Your task to perform on an android device: turn off sleep mode Image 0: 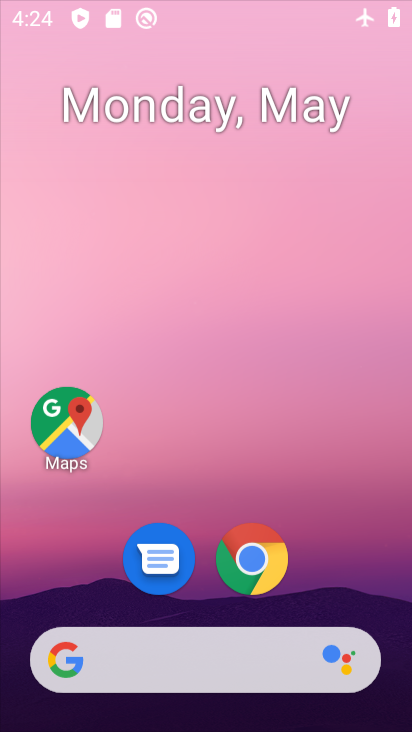
Step 0: drag from (281, 352) to (215, 60)
Your task to perform on an android device: turn off sleep mode Image 1: 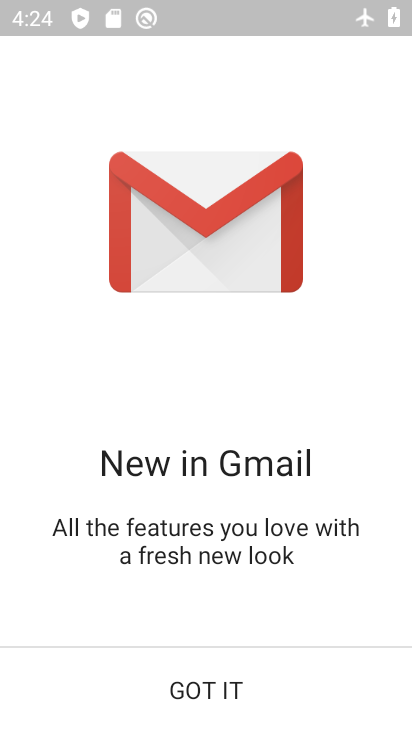
Step 1: press back button
Your task to perform on an android device: turn off sleep mode Image 2: 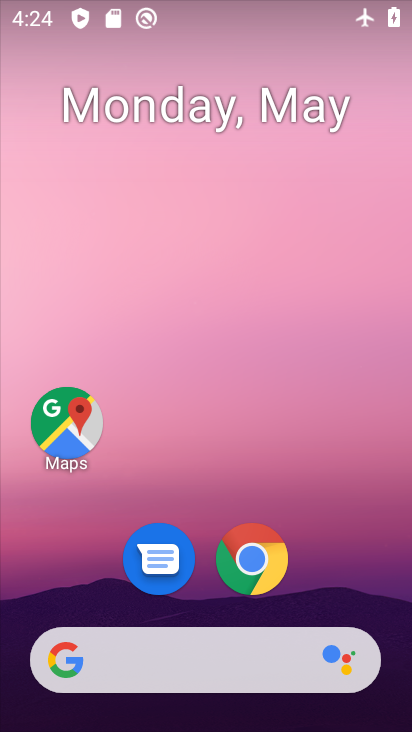
Step 2: drag from (301, 463) to (287, 11)
Your task to perform on an android device: turn off sleep mode Image 3: 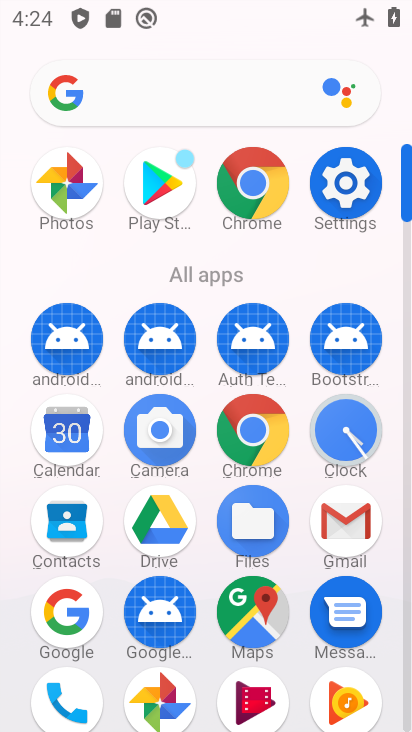
Step 3: drag from (8, 560) to (32, 208)
Your task to perform on an android device: turn off sleep mode Image 4: 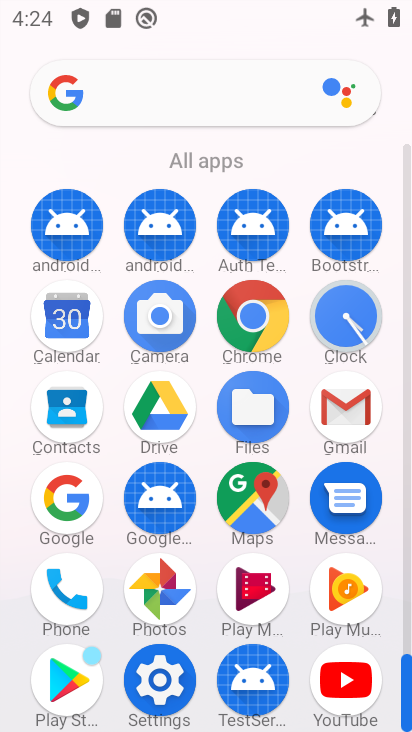
Step 4: click (159, 678)
Your task to perform on an android device: turn off sleep mode Image 5: 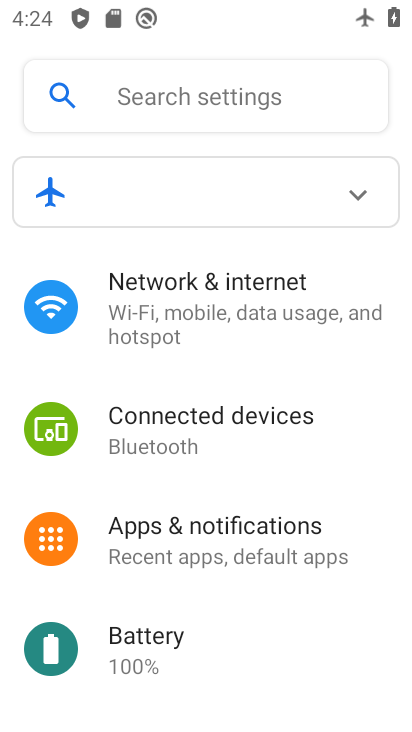
Step 5: drag from (254, 533) to (264, 237)
Your task to perform on an android device: turn off sleep mode Image 6: 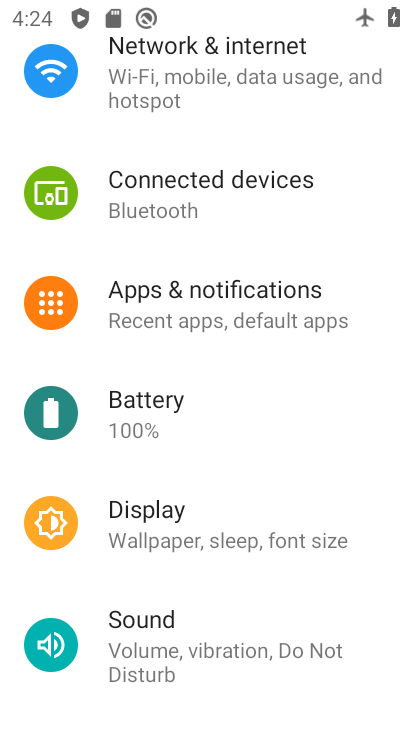
Step 6: click (234, 518)
Your task to perform on an android device: turn off sleep mode Image 7: 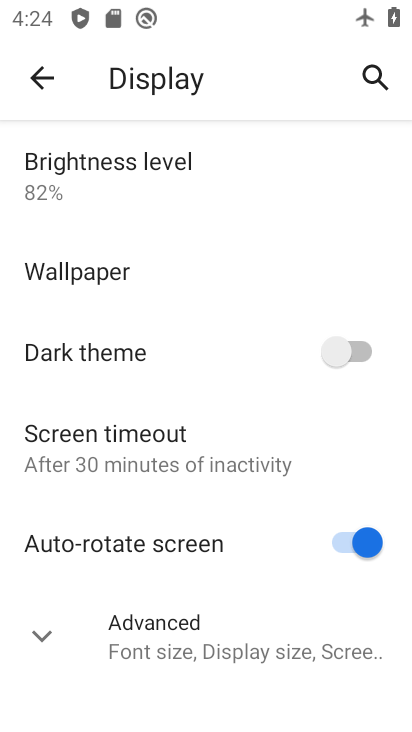
Step 7: click (43, 627)
Your task to perform on an android device: turn off sleep mode Image 8: 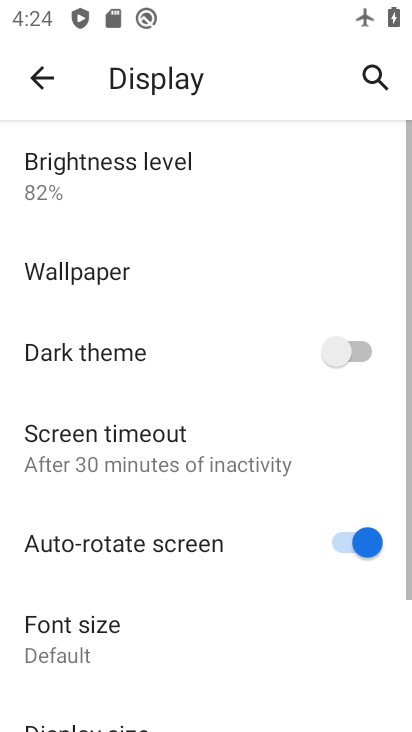
Step 8: drag from (205, 533) to (224, 96)
Your task to perform on an android device: turn off sleep mode Image 9: 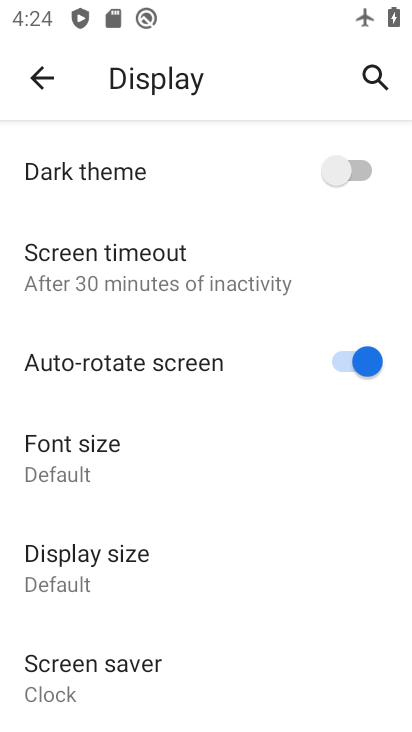
Step 9: drag from (223, 193) to (227, 659)
Your task to perform on an android device: turn off sleep mode Image 10: 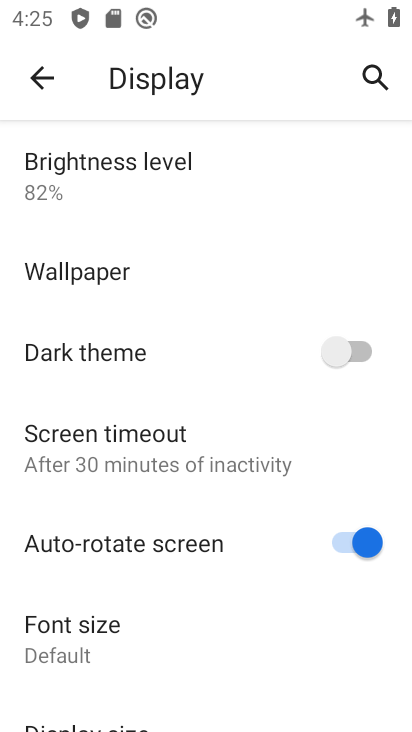
Step 10: click (45, 75)
Your task to perform on an android device: turn off sleep mode Image 11: 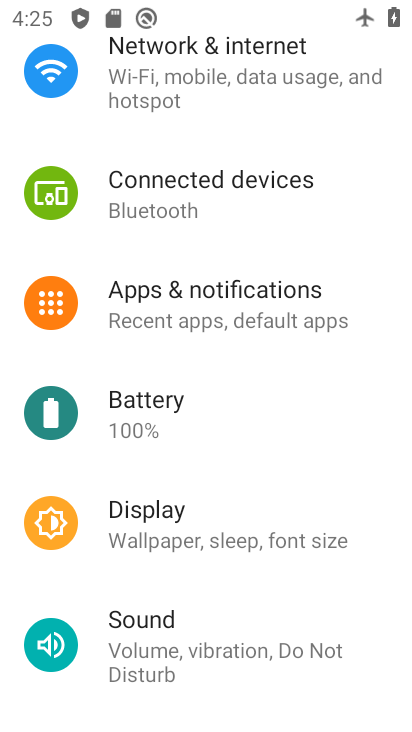
Step 11: click (212, 525)
Your task to perform on an android device: turn off sleep mode Image 12: 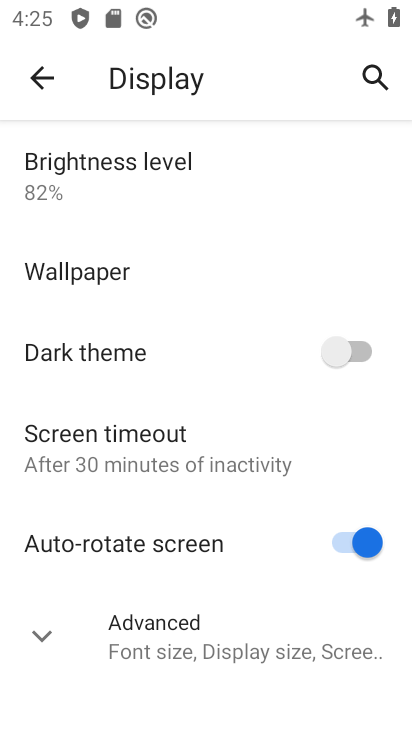
Step 12: click (55, 622)
Your task to perform on an android device: turn off sleep mode Image 13: 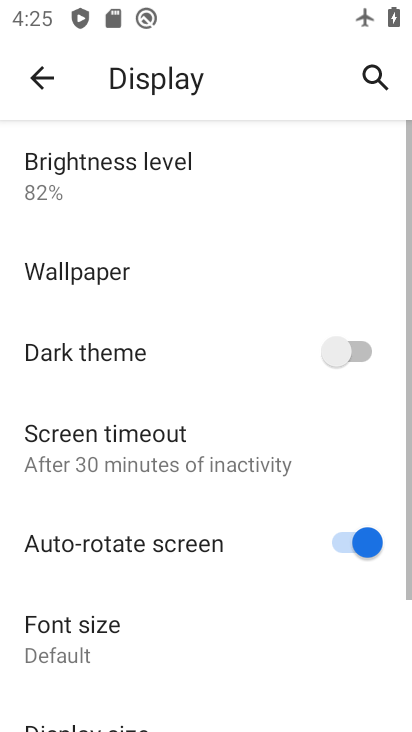
Step 13: task complete